Your task to perform on an android device: toggle location history Image 0: 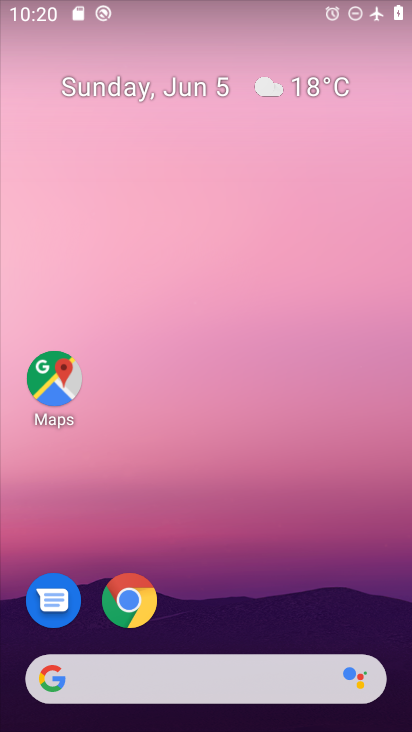
Step 0: drag from (264, 562) to (241, 10)
Your task to perform on an android device: toggle location history Image 1: 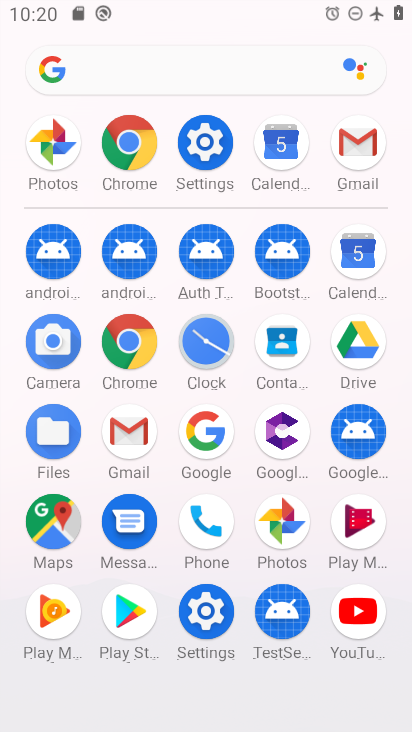
Step 1: click (205, 129)
Your task to perform on an android device: toggle location history Image 2: 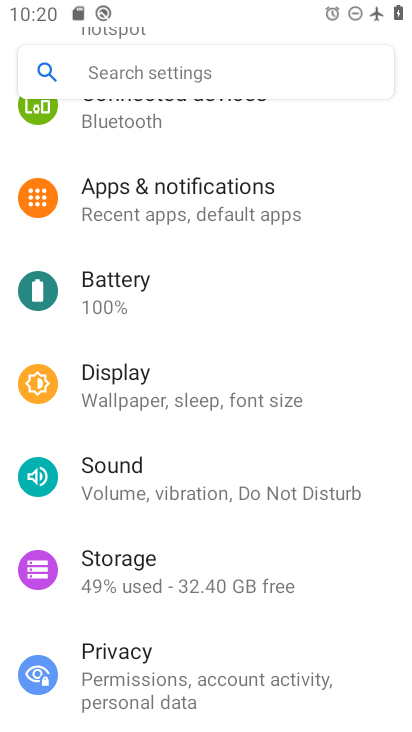
Step 2: drag from (190, 290) to (226, 479)
Your task to perform on an android device: toggle location history Image 3: 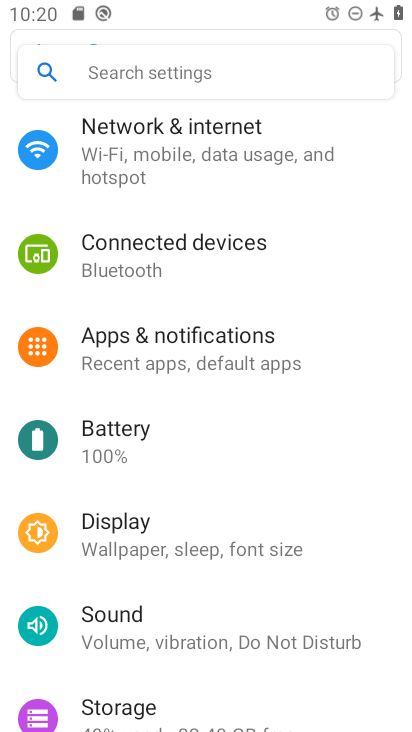
Step 3: drag from (227, 485) to (179, 69)
Your task to perform on an android device: toggle location history Image 4: 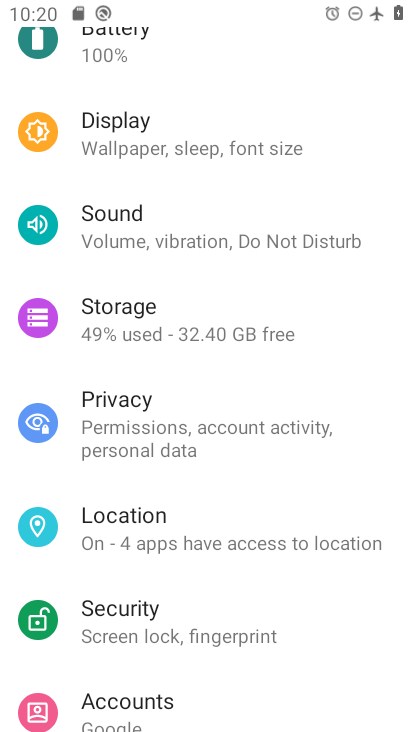
Step 4: click (214, 530)
Your task to perform on an android device: toggle location history Image 5: 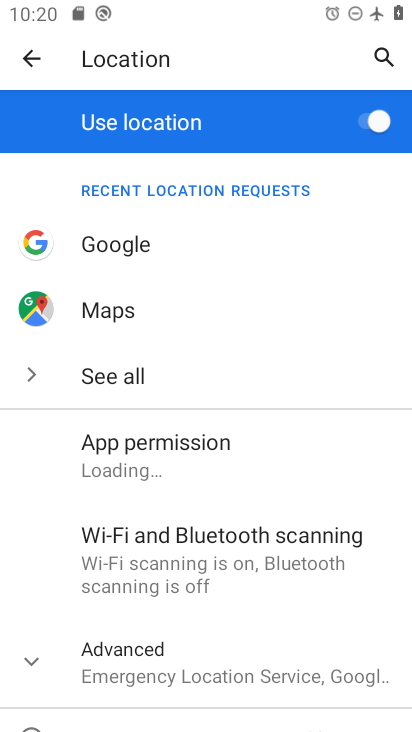
Step 5: click (30, 659)
Your task to perform on an android device: toggle location history Image 6: 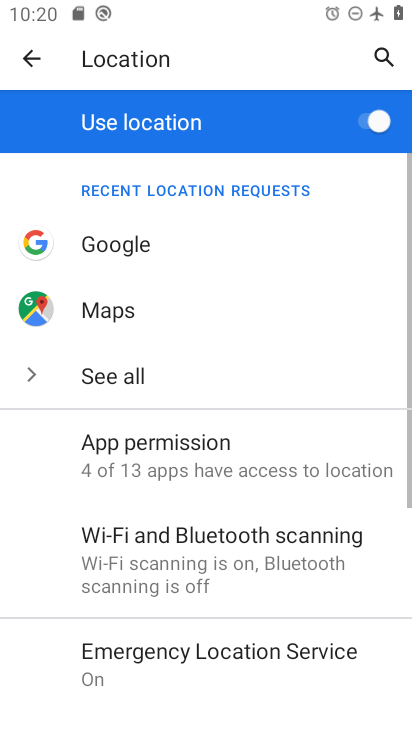
Step 6: drag from (234, 607) to (215, 149)
Your task to perform on an android device: toggle location history Image 7: 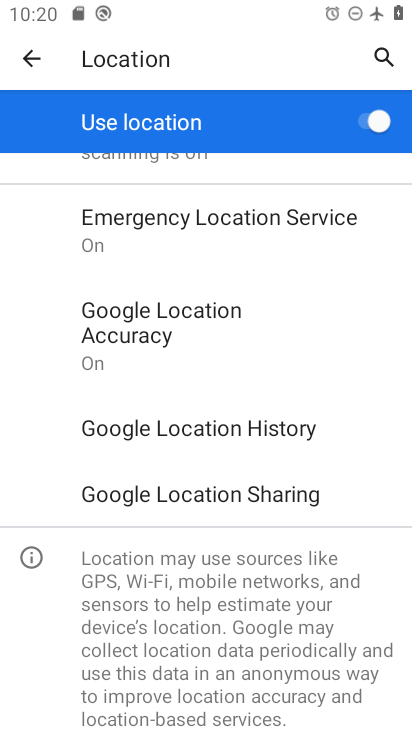
Step 7: click (237, 422)
Your task to perform on an android device: toggle location history Image 8: 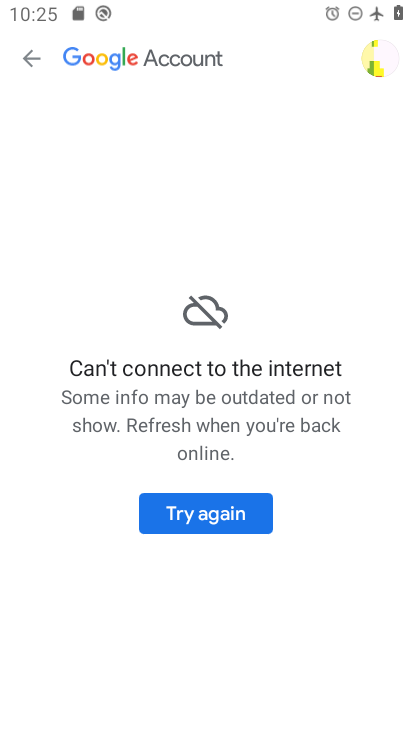
Step 8: task complete